Your task to perform on an android device: turn off sleep mode Image 0: 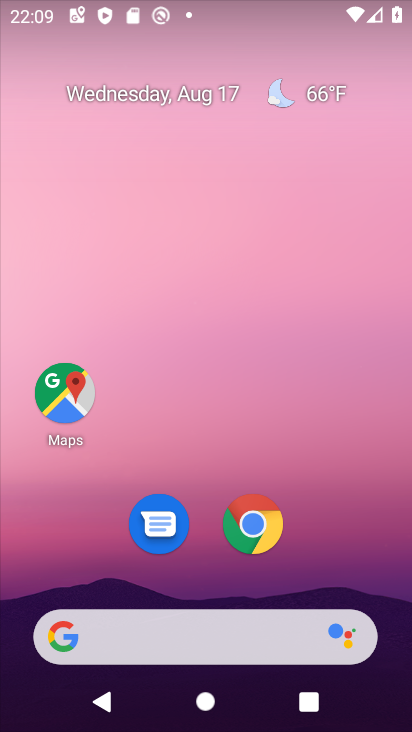
Step 0: drag from (315, 515) to (282, 0)
Your task to perform on an android device: turn off sleep mode Image 1: 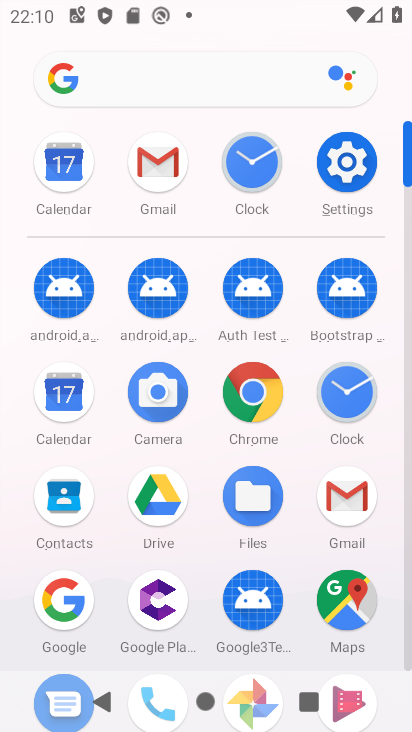
Step 1: click (343, 158)
Your task to perform on an android device: turn off sleep mode Image 2: 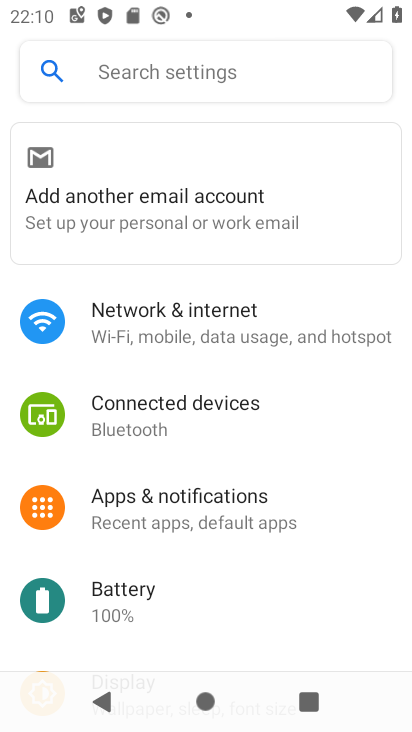
Step 2: drag from (227, 575) to (237, 226)
Your task to perform on an android device: turn off sleep mode Image 3: 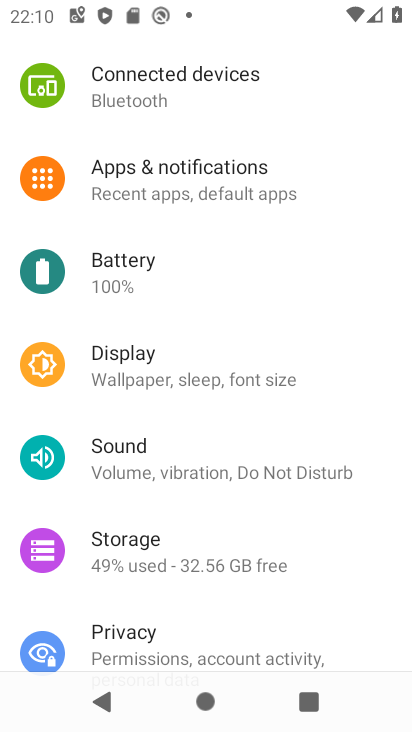
Step 3: click (237, 368)
Your task to perform on an android device: turn off sleep mode Image 4: 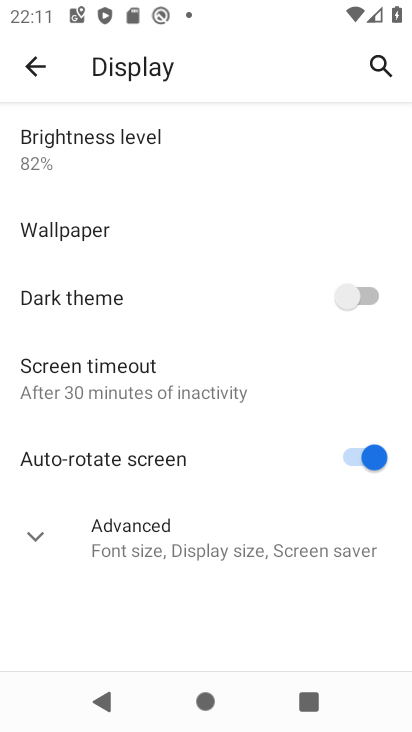
Step 4: click (38, 534)
Your task to perform on an android device: turn off sleep mode Image 5: 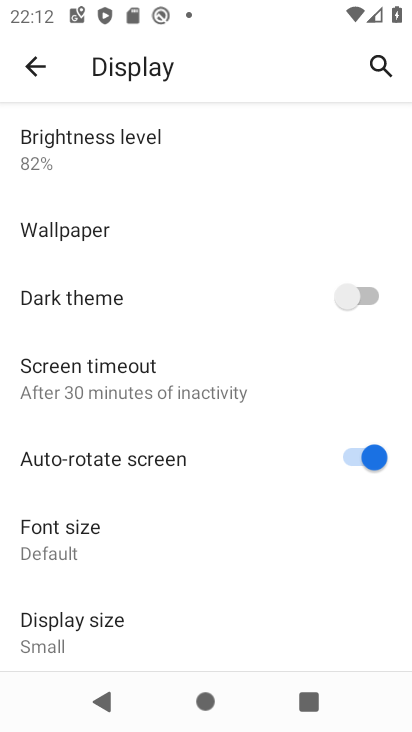
Step 5: task complete